Your task to perform on an android device: turn on javascript in the chrome app Image 0: 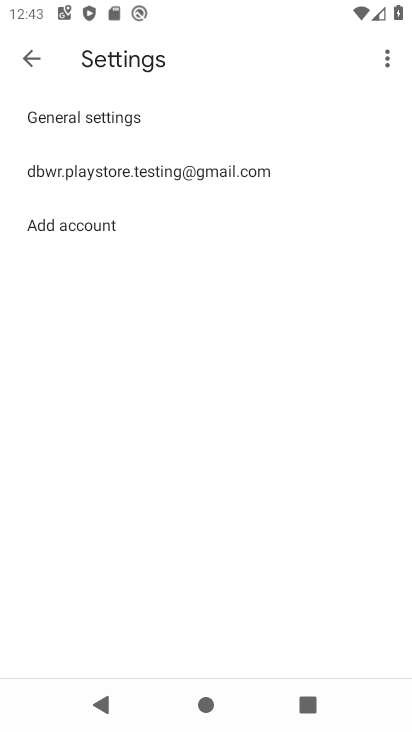
Step 0: press home button
Your task to perform on an android device: turn on javascript in the chrome app Image 1: 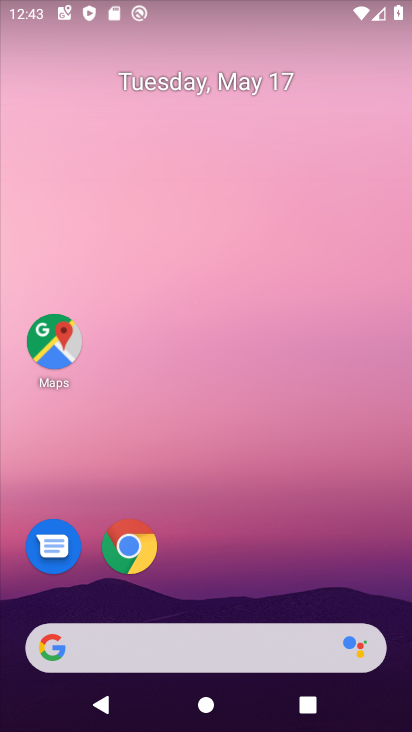
Step 1: click (135, 550)
Your task to perform on an android device: turn on javascript in the chrome app Image 2: 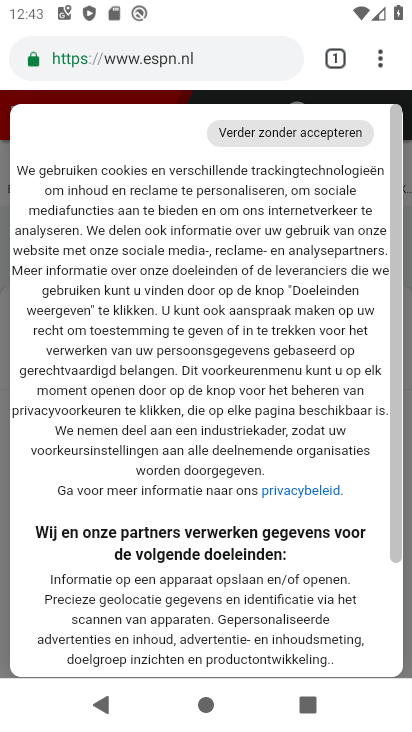
Step 2: click (381, 61)
Your task to perform on an android device: turn on javascript in the chrome app Image 3: 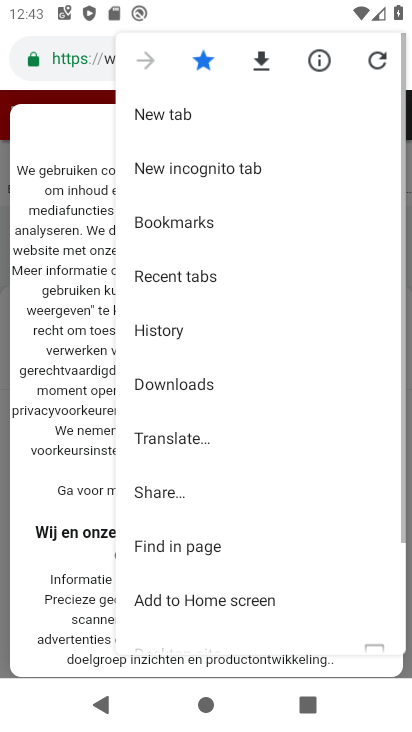
Step 3: drag from (242, 541) to (274, 229)
Your task to perform on an android device: turn on javascript in the chrome app Image 4: 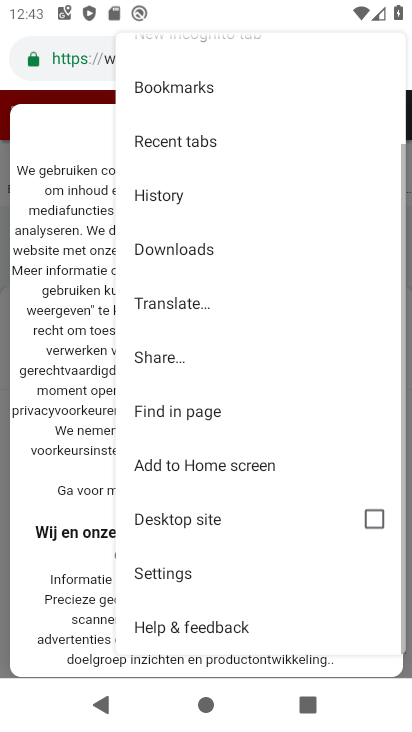
Step 4: click (182, 569)
Your task to perform on an android device: turn on javascript in the chrome app Image 5: 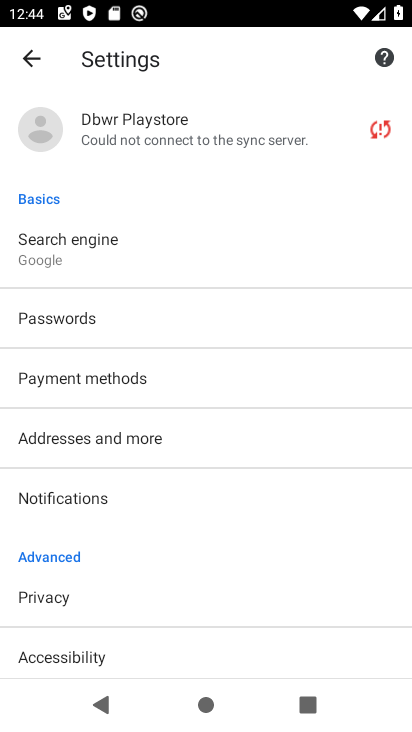
Step 5: drag from (195, 621) to (202, 249)
Your task to perform on an android device: turn on javascript in the chrome app Image 6: 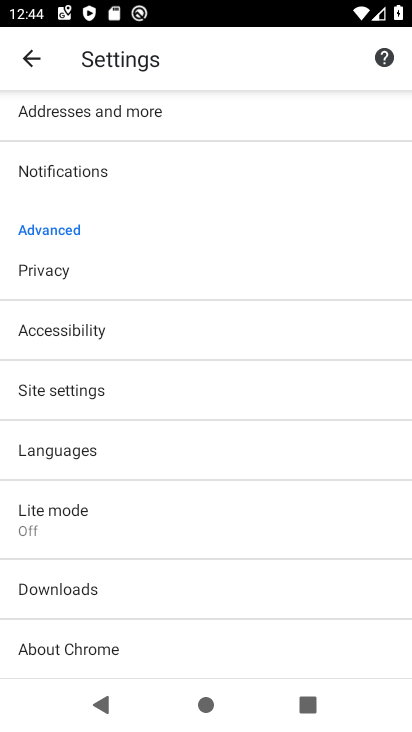
Step 6: click (61, 394)
Your task to perform on an android device: turn on javascript in the chrome app Image 7: 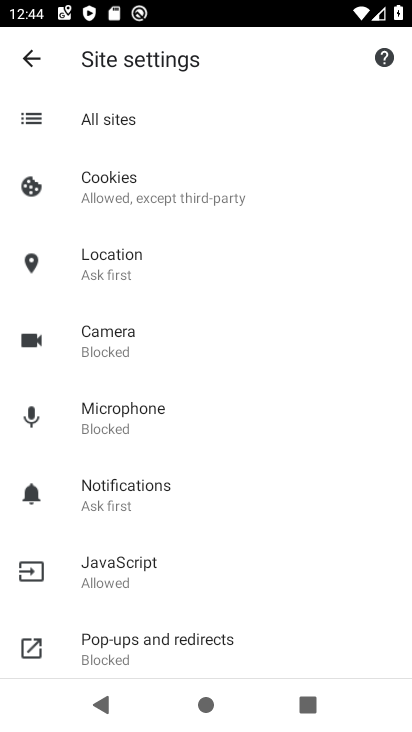
Step 7: click (120, 578)
Your task to perform on an android device: turn on javascript in the chrome app Image 8: 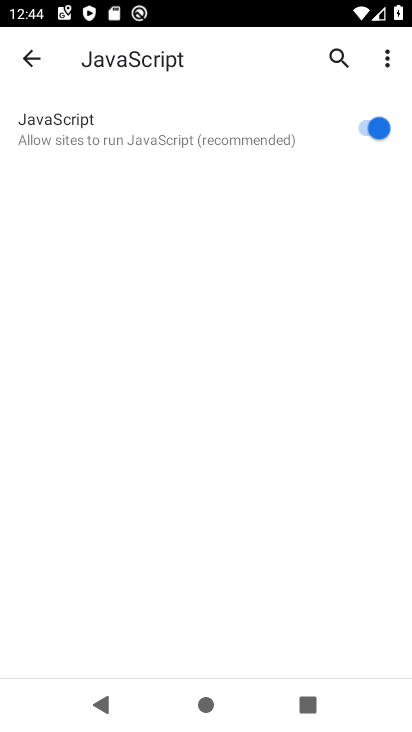
Step 8: task complete